Your task to perform on an android device: create a new album in the google photos Image 0: 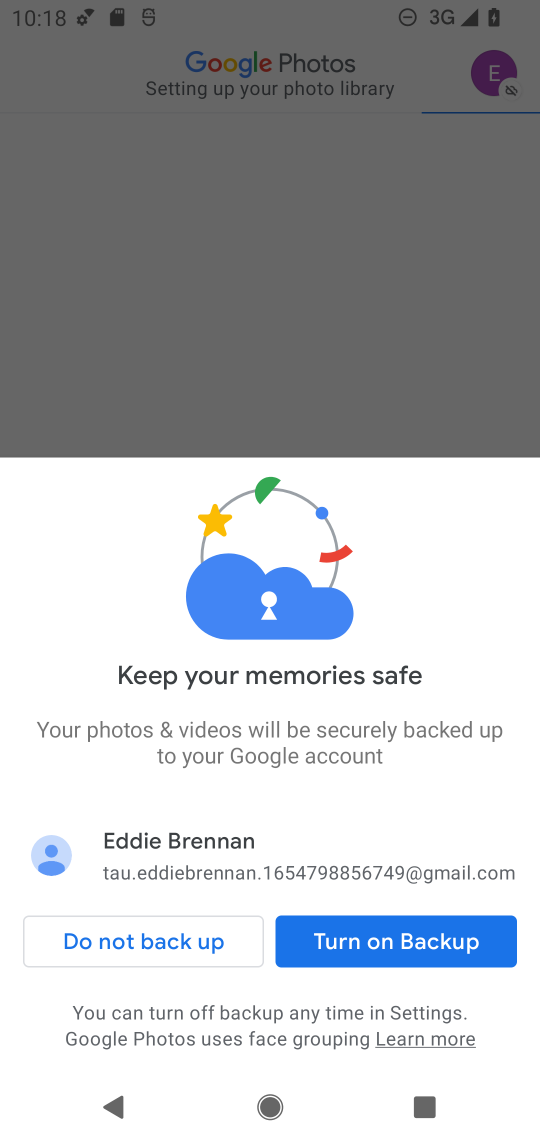
Step 0: press home button
Your task to perform on an android device: create a new album in the google photos Image 1: 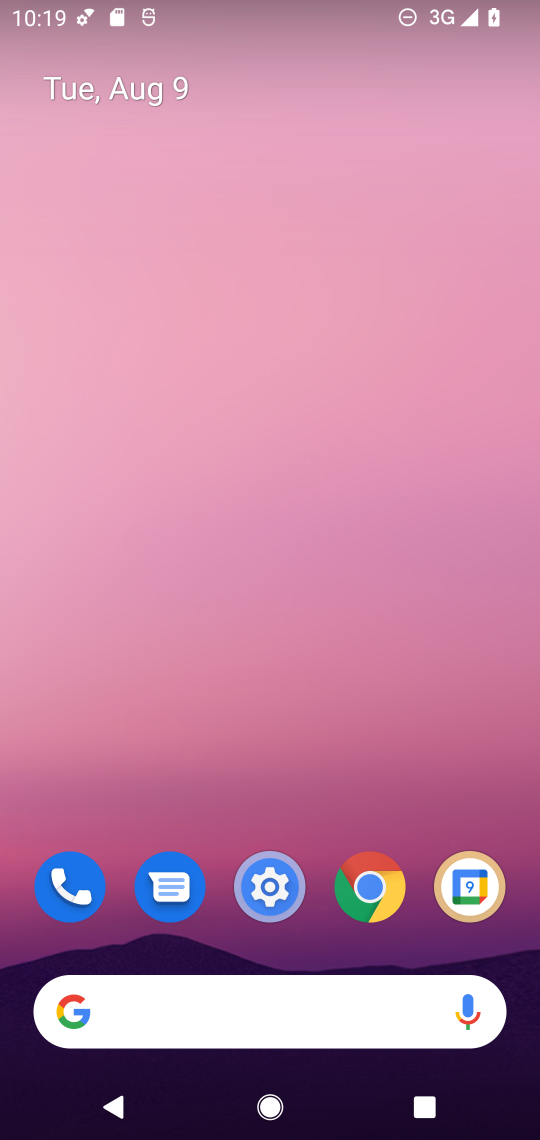
Step 1: drag from (245, 793) to (246, 89)
Your task to perform on an android device: create a new album in the google photos Image 2: 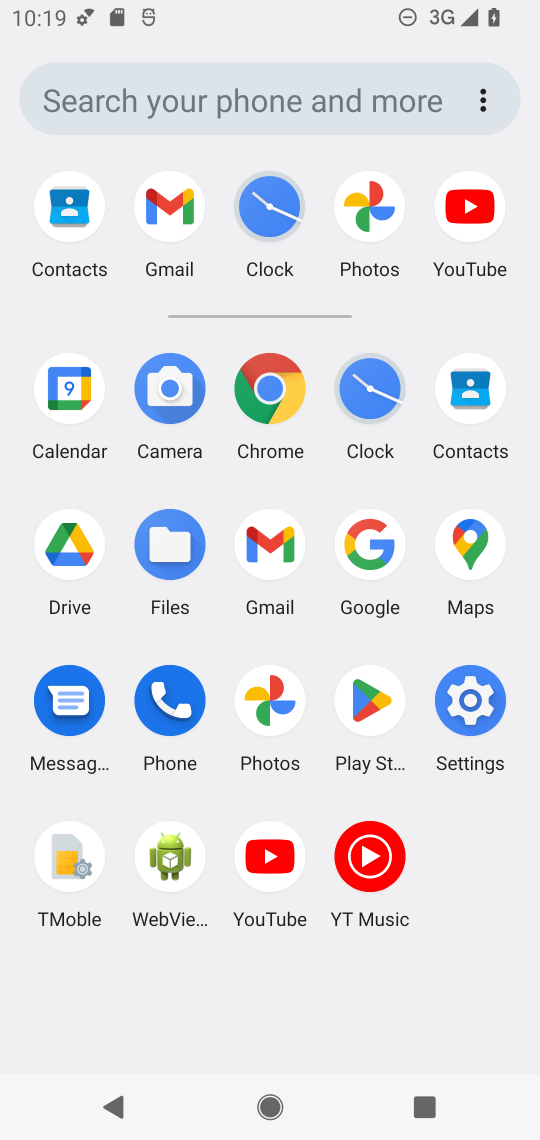
Step 2: click (350, 213)
Your task to perform on an android device: create a new album in the google photos Image 3: 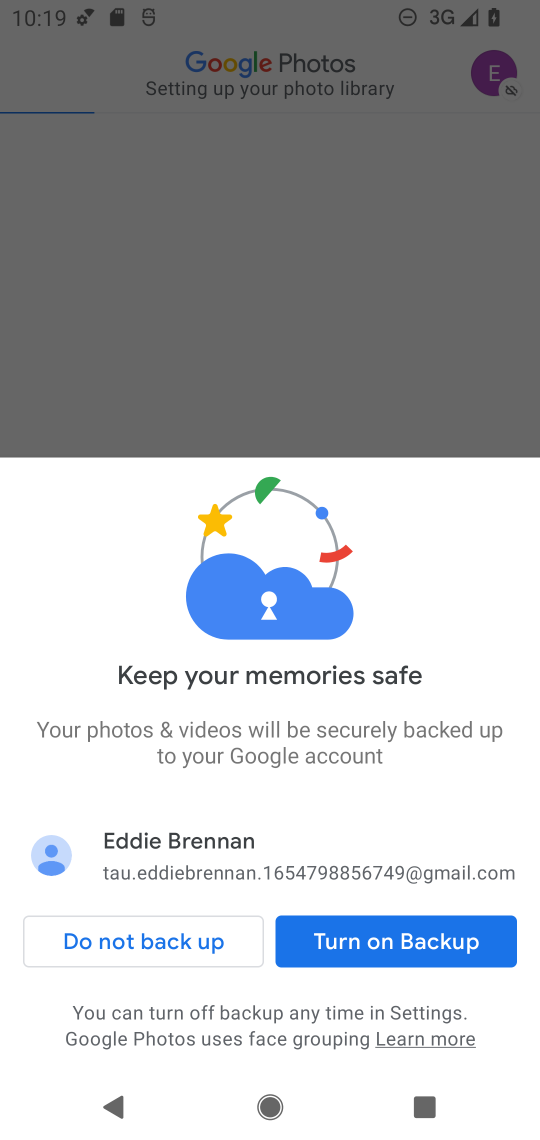
Step 3: click (198, 941)
Your task to perform on an android device: create a new album in the google photos Image 4: 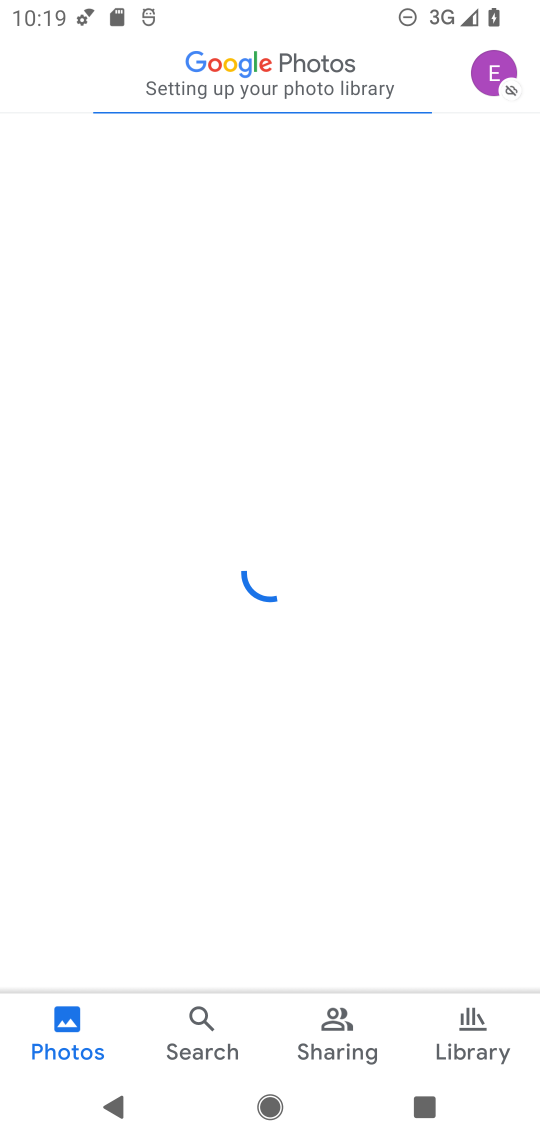
Step 4: click (69, 1018)
Your task to perform on an android device: create a new album in the google photos Image 5: 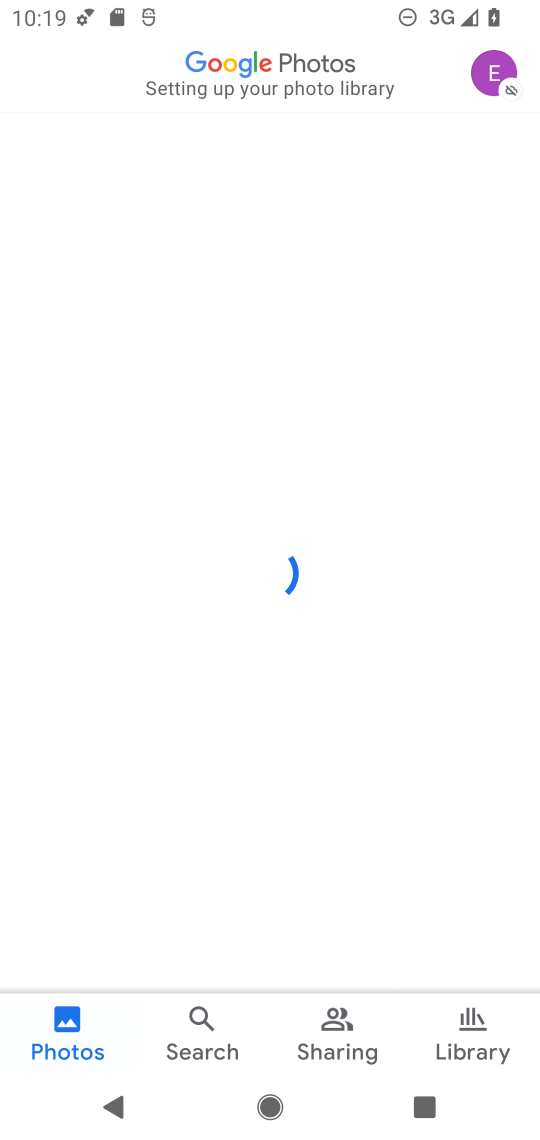
Step 5: click (512, 85)
Your task to perform on an android device: create a new album in the google photos Image 6: 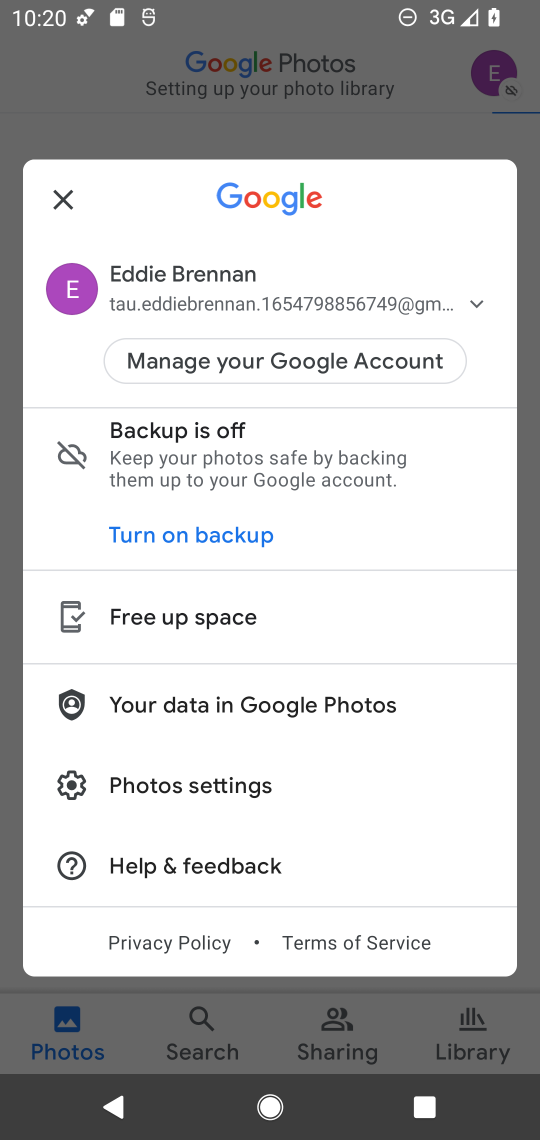
Step 6: task complete